Your task to perform on an android device: uninstall "Microsoft Excel" Image 0: 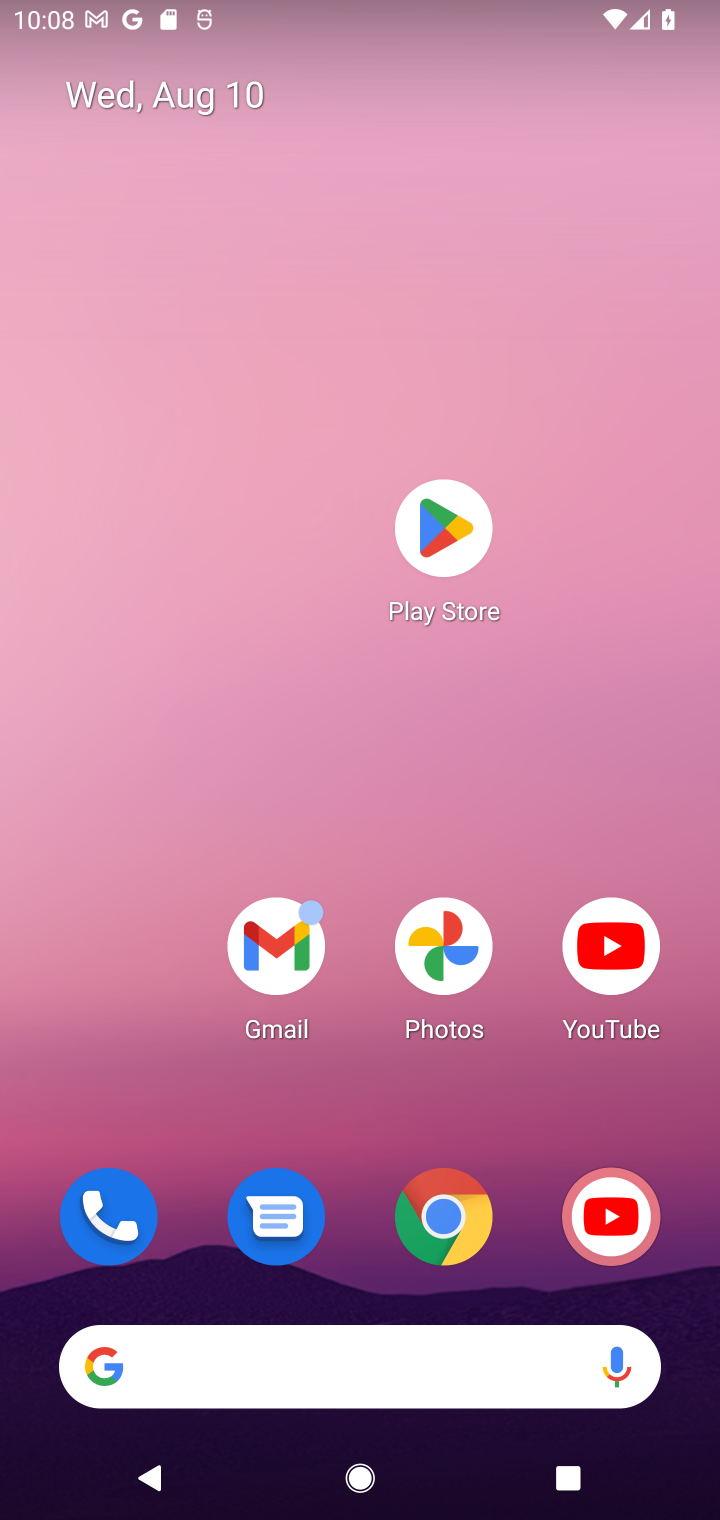
Step 0: click (443, 532)
Your task to perform on an android device: uninstall "Microsoft Excel" Image 1: 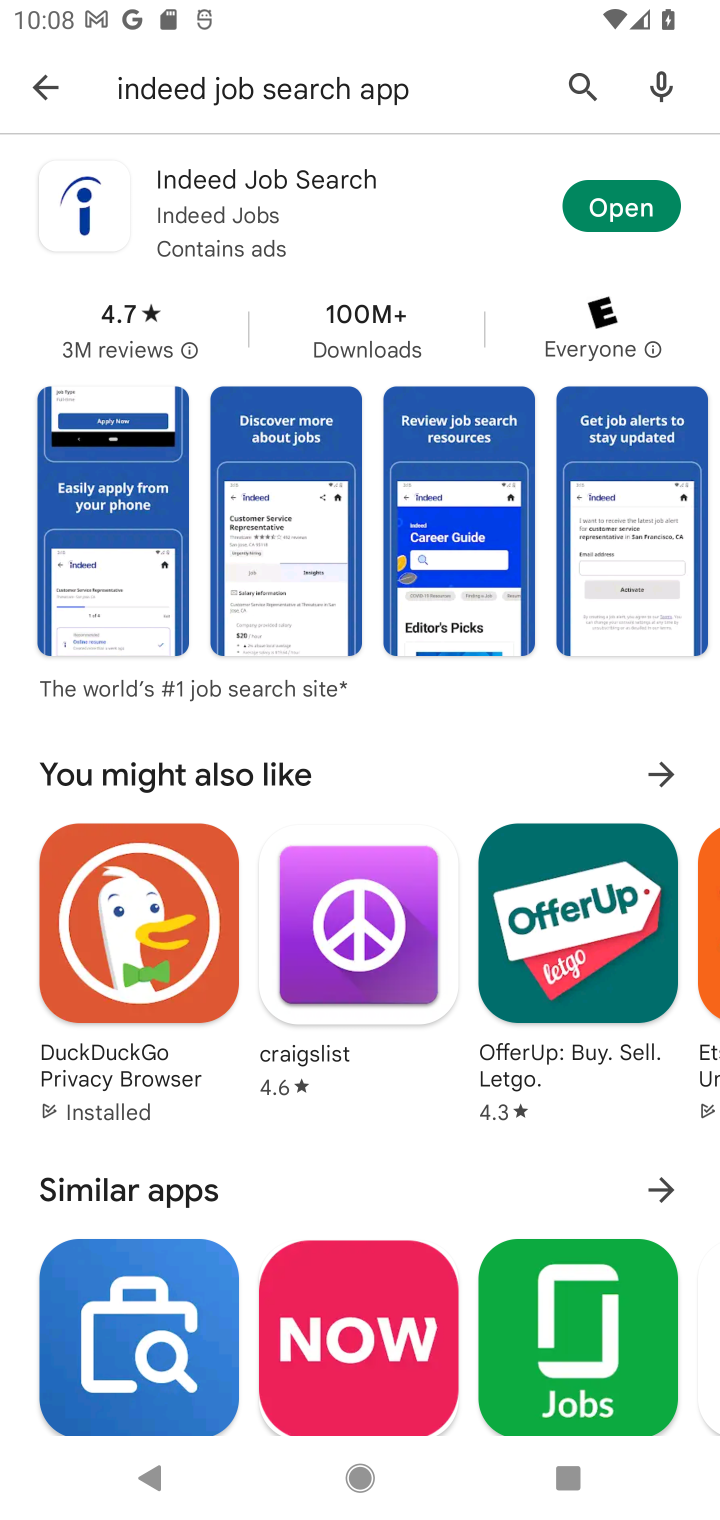
Step 1: click (579, 79)
Your task to perform on an android device: uninstall "Microsoft Excel" Image 2: 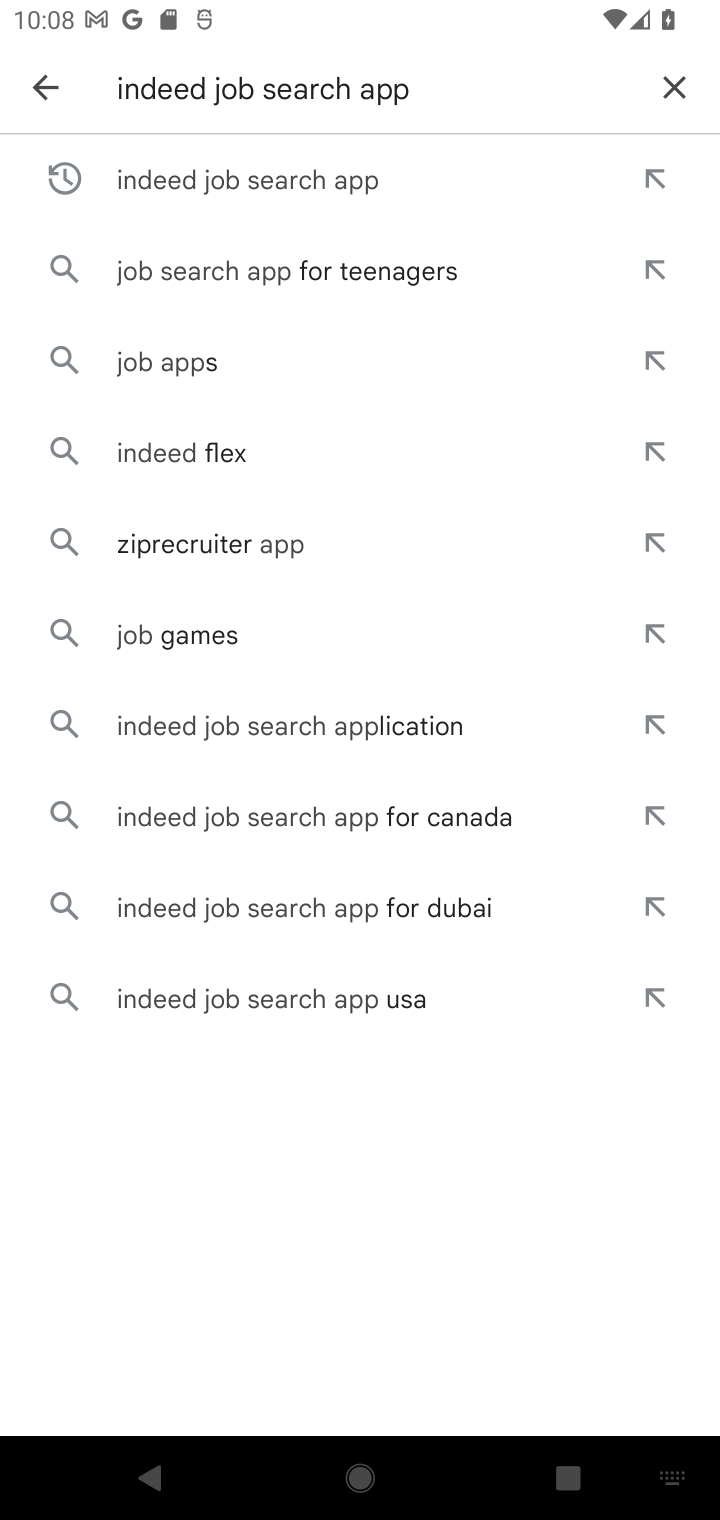
Step 2: click (663, 86)
Your task to perform on an android device: uninstall "Microsoft Excel" Image 3: 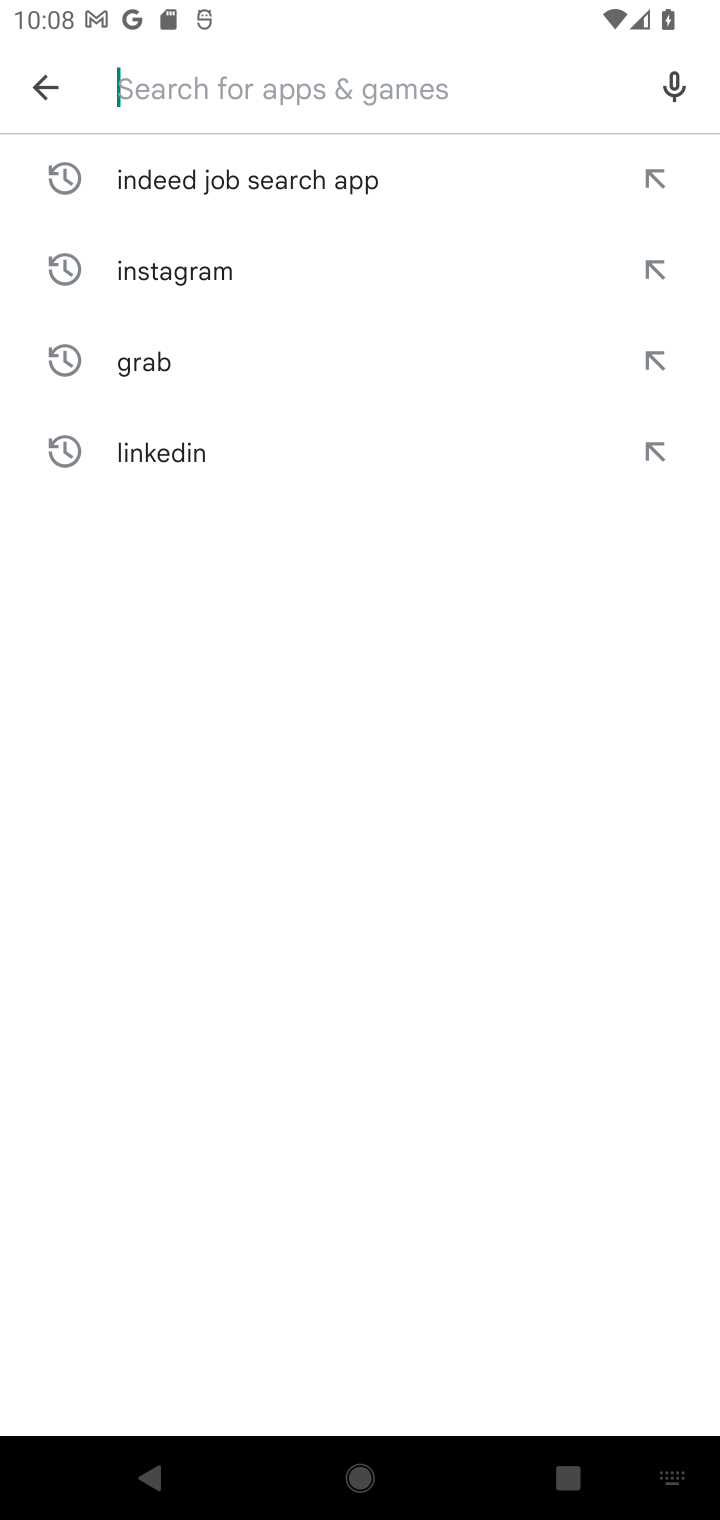
Step 3: type "Microsoft Excel"
Your task to perform on an android device: uninstall "Microsoft Excel" Image 4: 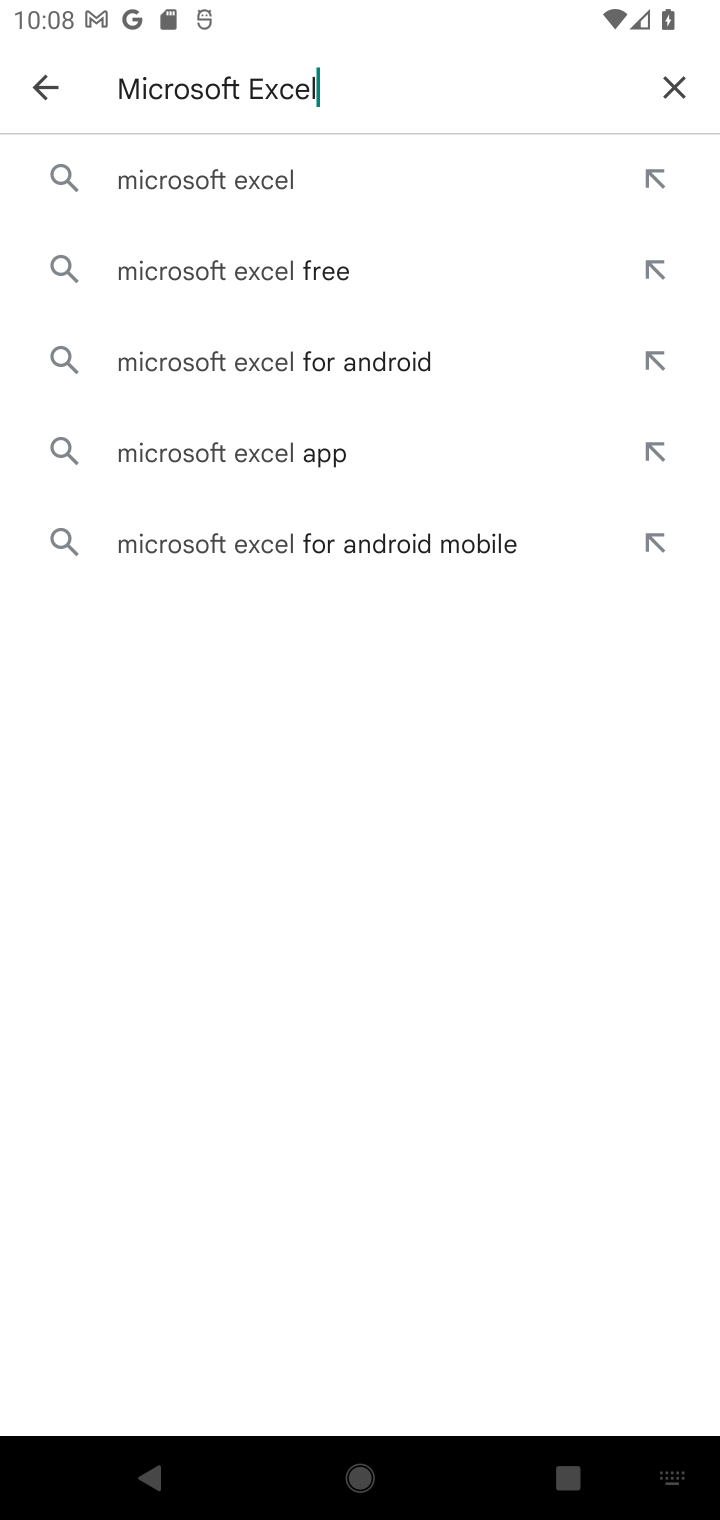
Step 4: click (120, 176)
Your task to perform on an android device: uninstall "Microsoft Excel" Image 5: 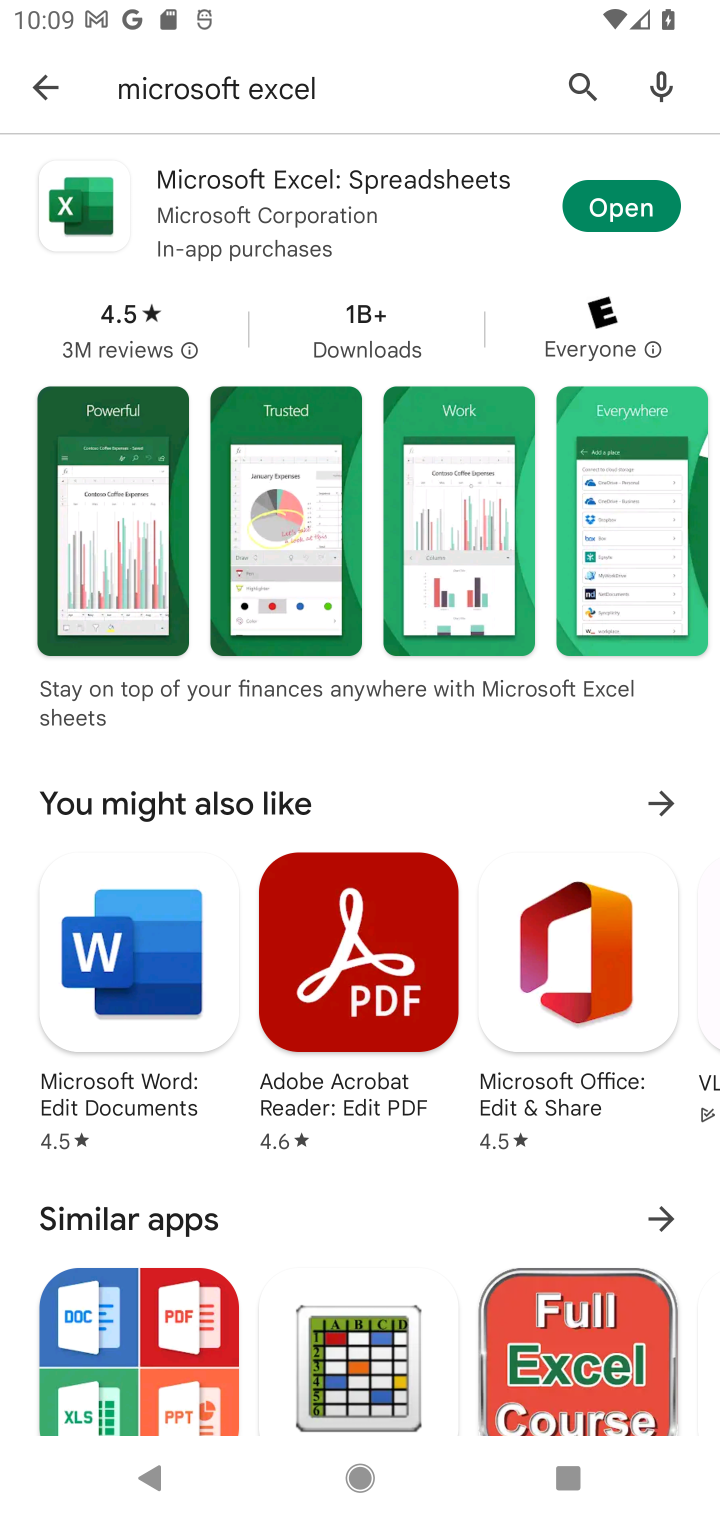
Step 5: click (211, 177)
Your task to perform on an android device: uninstall "Microsoft Excel" Image 6: 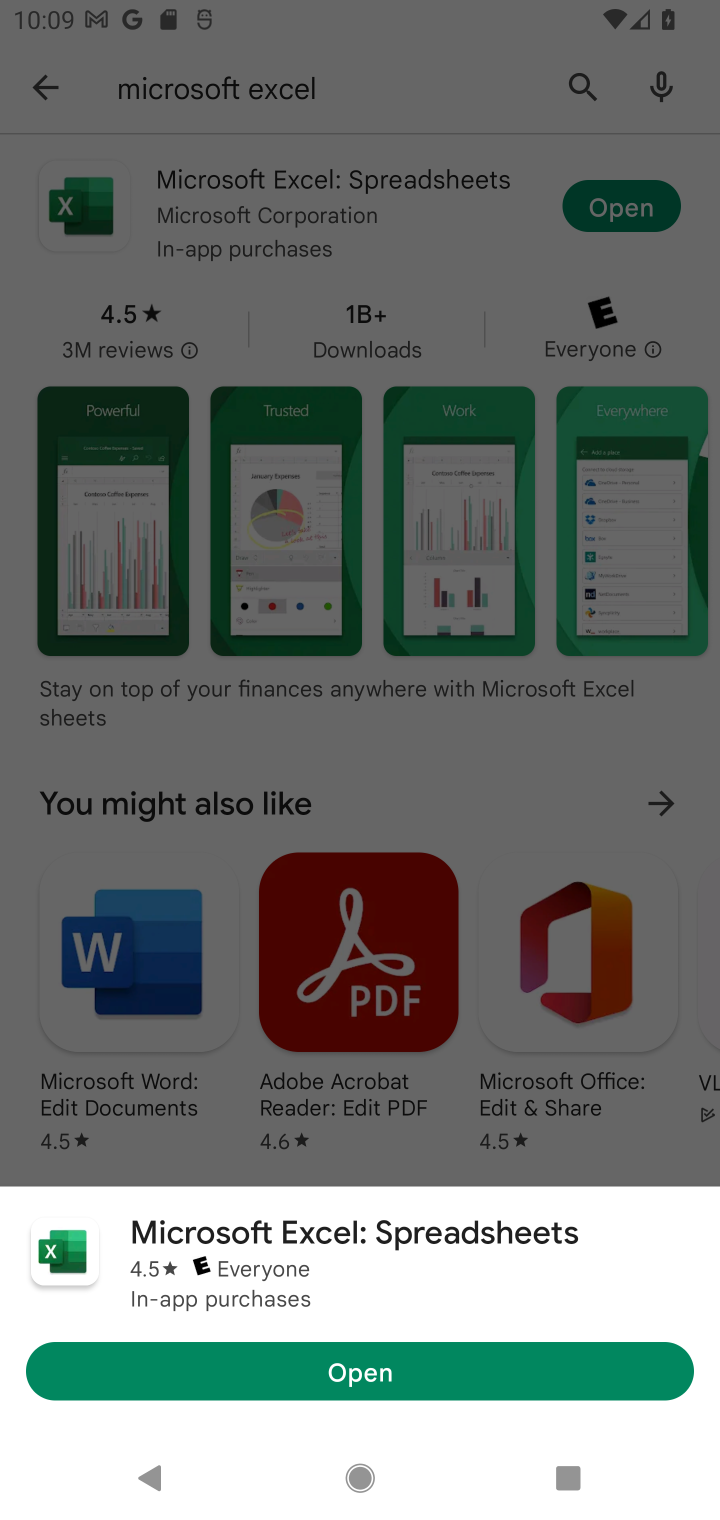
Step 6: click (76, 1260)
Your task to perform on an android device: uninstall "Microsoft Excel" Image 7: 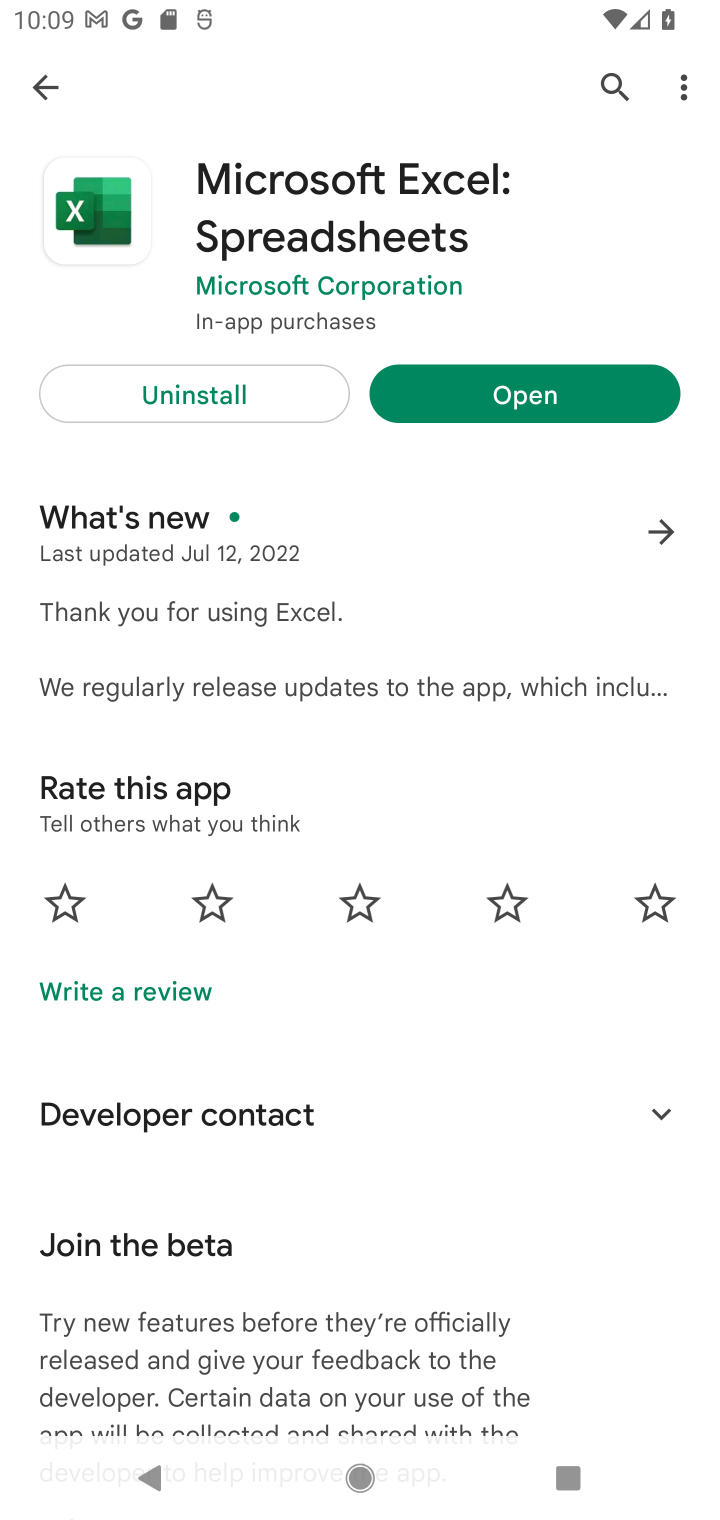
Step 7: click (214, 377)
Your task to perform on an android device: uninstall "Microsoft Excel" Image 8: 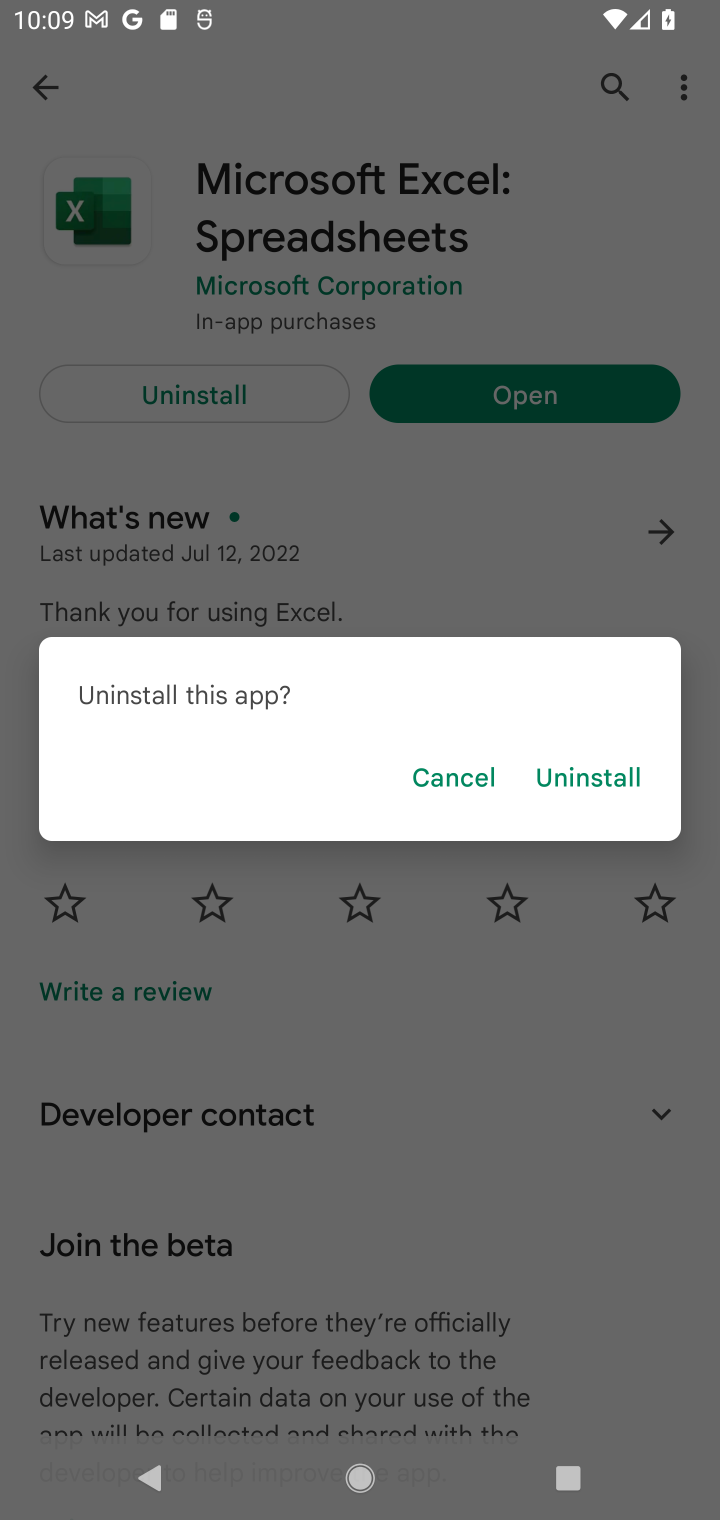
Step 8: click (602, 779)
Your task to perform on an android device: uninstall "Microsoft Excel" Image 9: 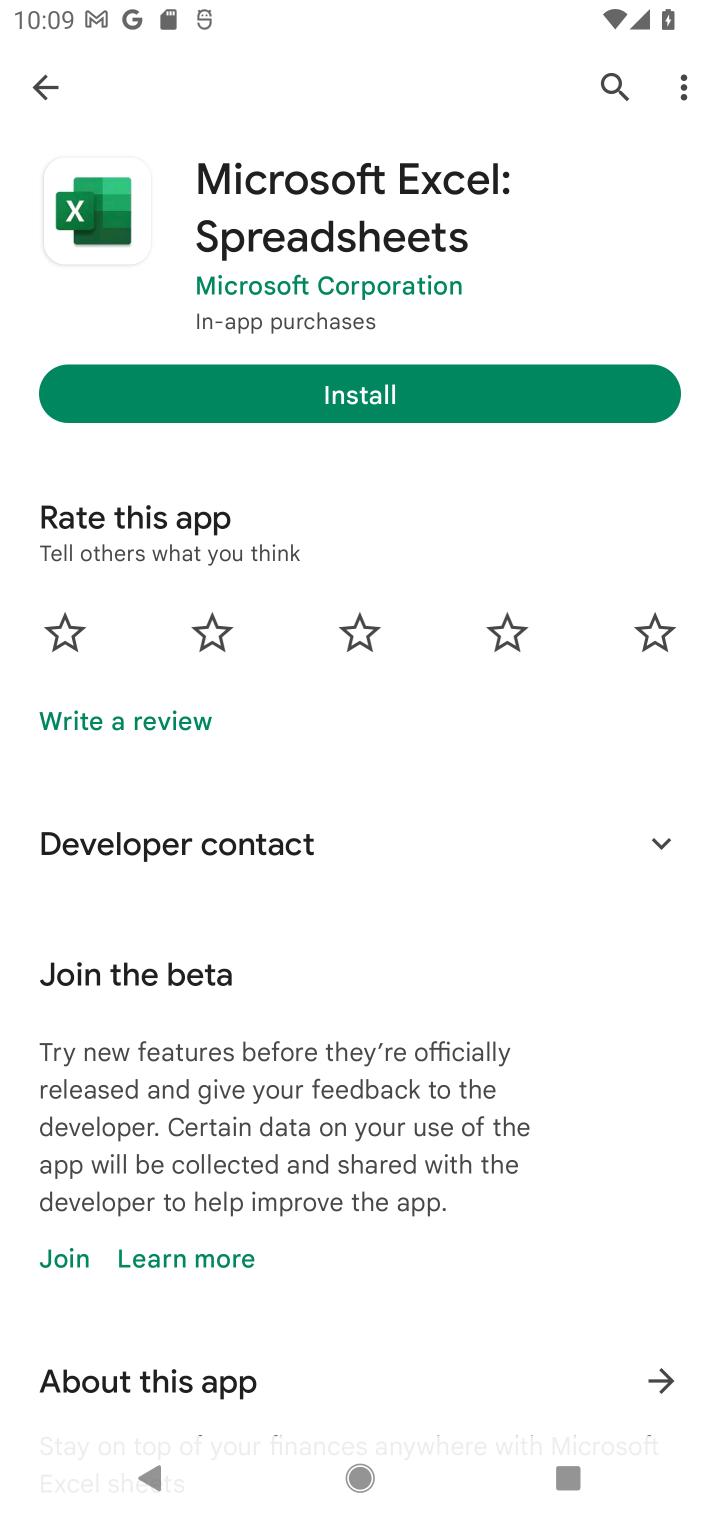
Step 9: task complete